Your task to perform on an android device: Play the last video I watched on Youtube Image 0: 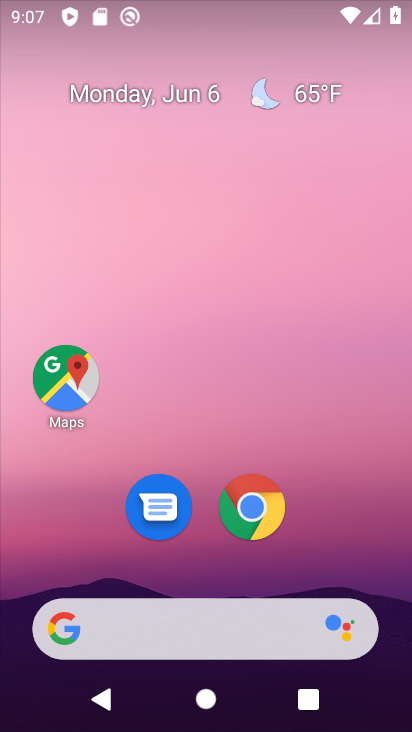
Step 0: drag from (307, 478) to (313, 232)
Your task to perform on an android device: Play the last video I watched on Youtube Image 1: 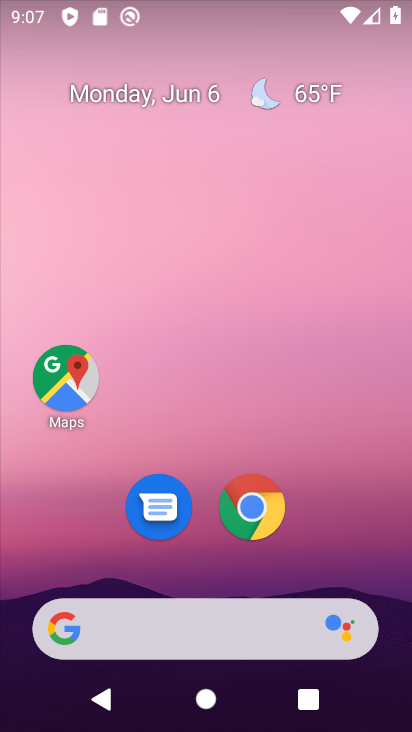
Step 1: drag from (295, 591) to (283, 232)
Your task to perform on an android device: Play the last video I watched on Youtube Image 2: 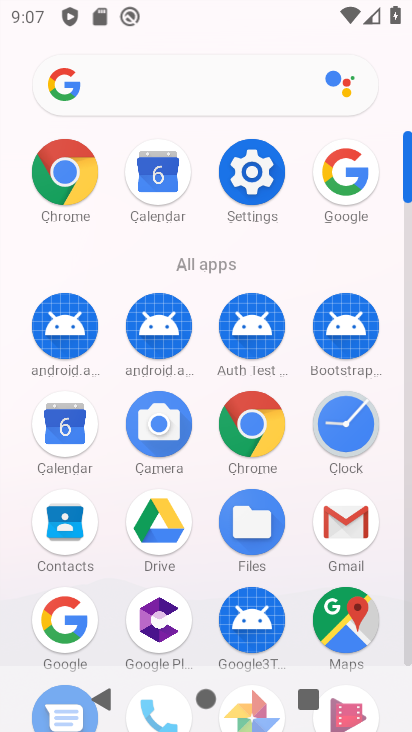
Step 2: drag from (307, 503) to (319, 291)
Your task to perform on an android device: Play the last video I watched on Youtube Image 3: 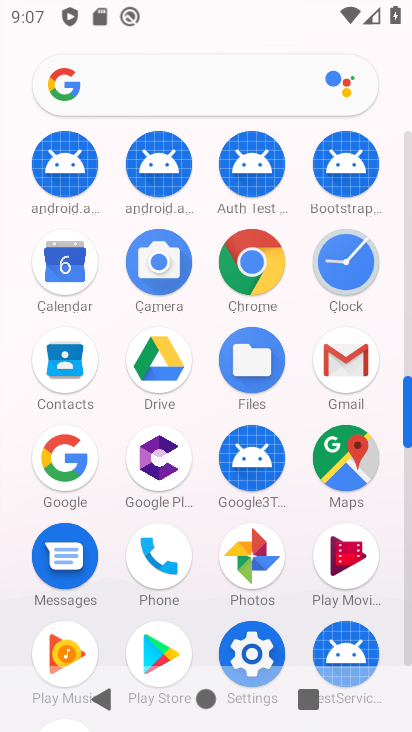
Step 3: drag from (294, 551) to (284, 268)
Your task to perform on an android device: Play the last video I watched on Youtube Image 4: 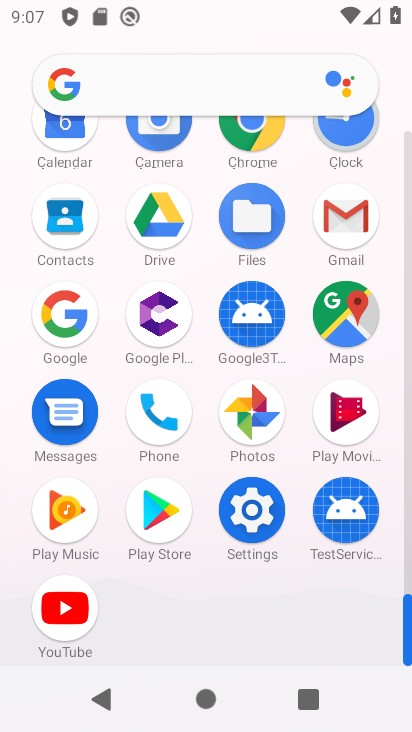
Step 4: click (53, 621)
Your task to perform on an android device: Play the last video I watched on Youtube Image 5: 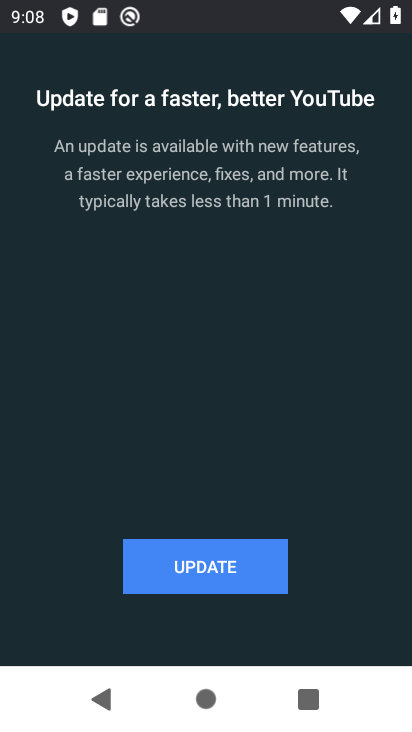
Step 5: task complete